Your task to perform on an android device: move a message to another label in the gmail app Image 0: 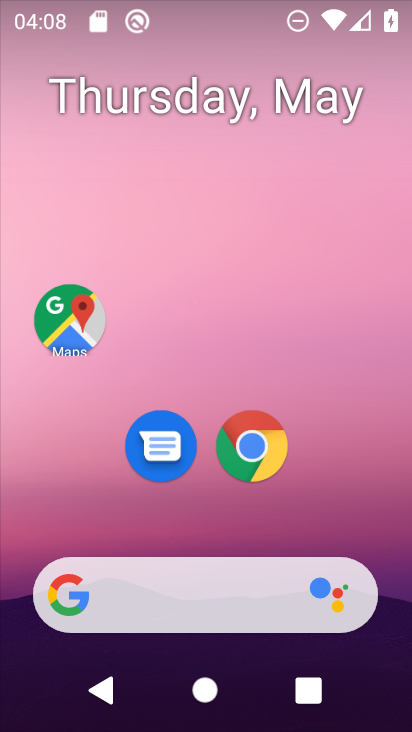
Step 0: drag from (374, 563) to (307, 29)
Your task to perform on an android device: move a message to another label in the gmail app Image 1: 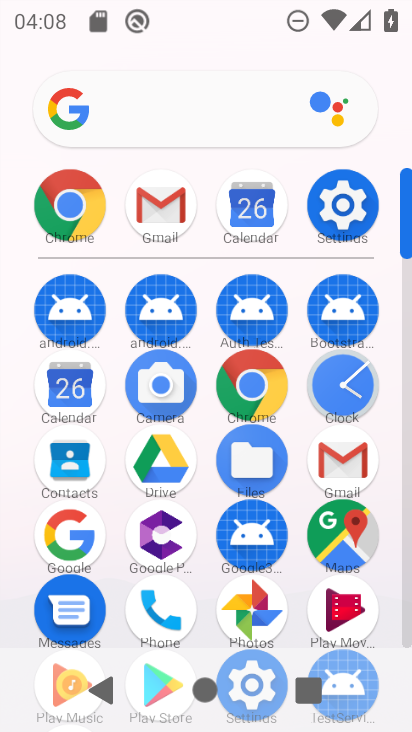
Step 1: click (149, 206)
Your task to perform on an android device: move a message to another label in the gmail app Image 2: 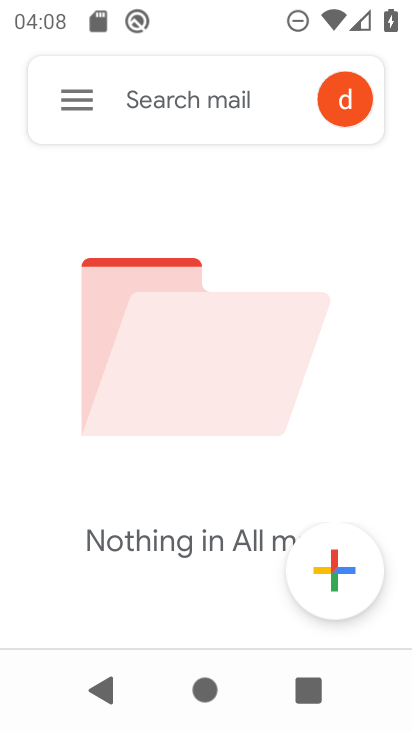
Step 2: task complete